Your task to perform on an android device: open app "Adobe Acrobat Reader" (install if not already installed), go to login, and select forgot password Image 0: 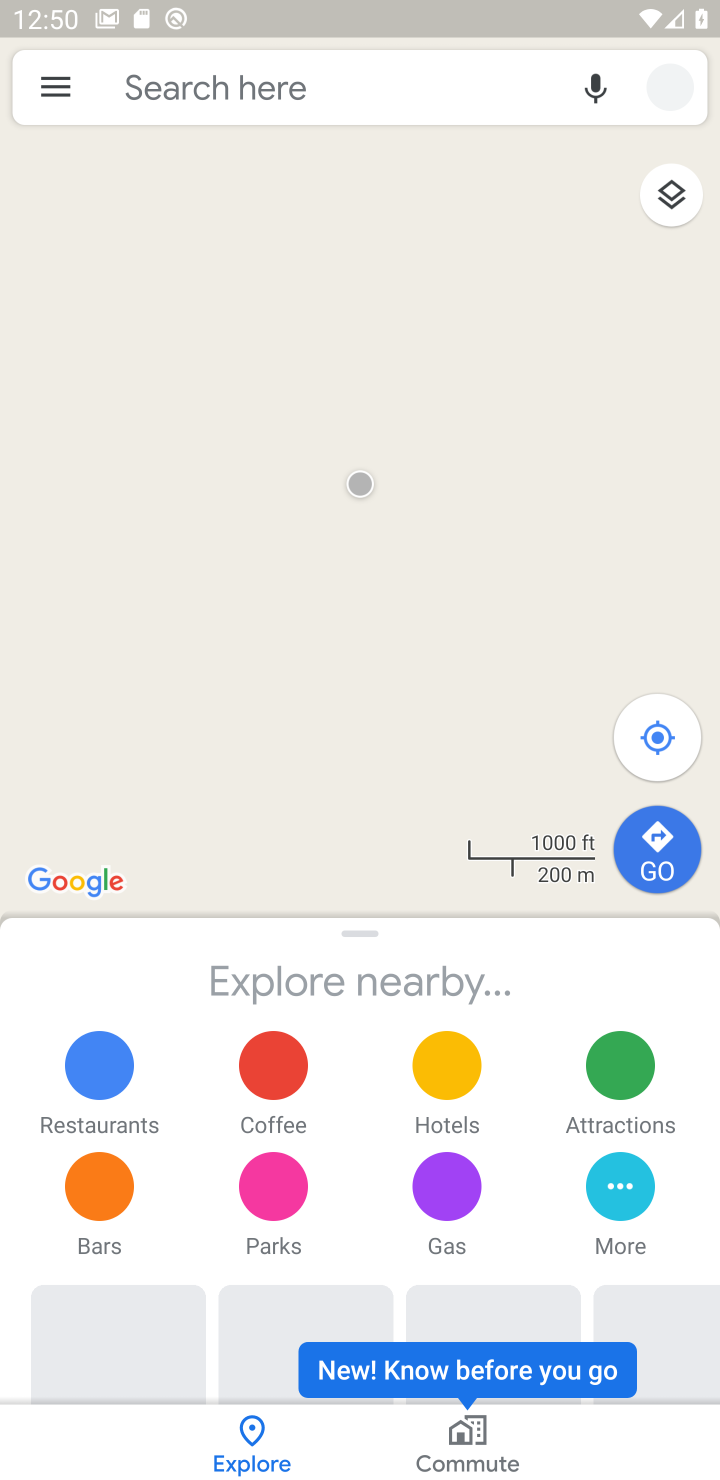
Step 0: press home button
Your task to perform on an android device: open app "Adobe Acrobat Reader" (install if not already installed), go to login, and select forgot password Image 1: 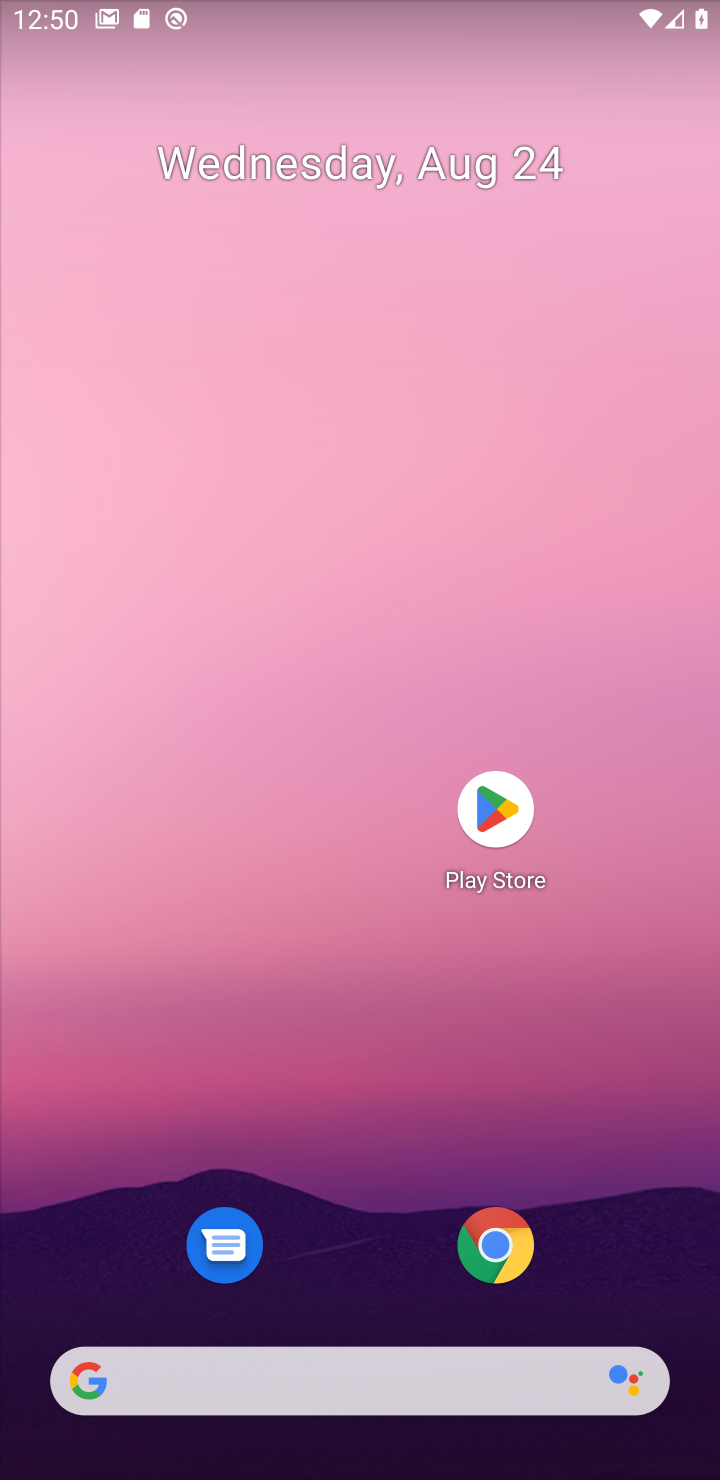
Step 1: click (493, 811)
Your task to perform on an android device: open app "Adobe Acrobat Reader" (install if not already installed), go to login, and select forgot password Image 2: 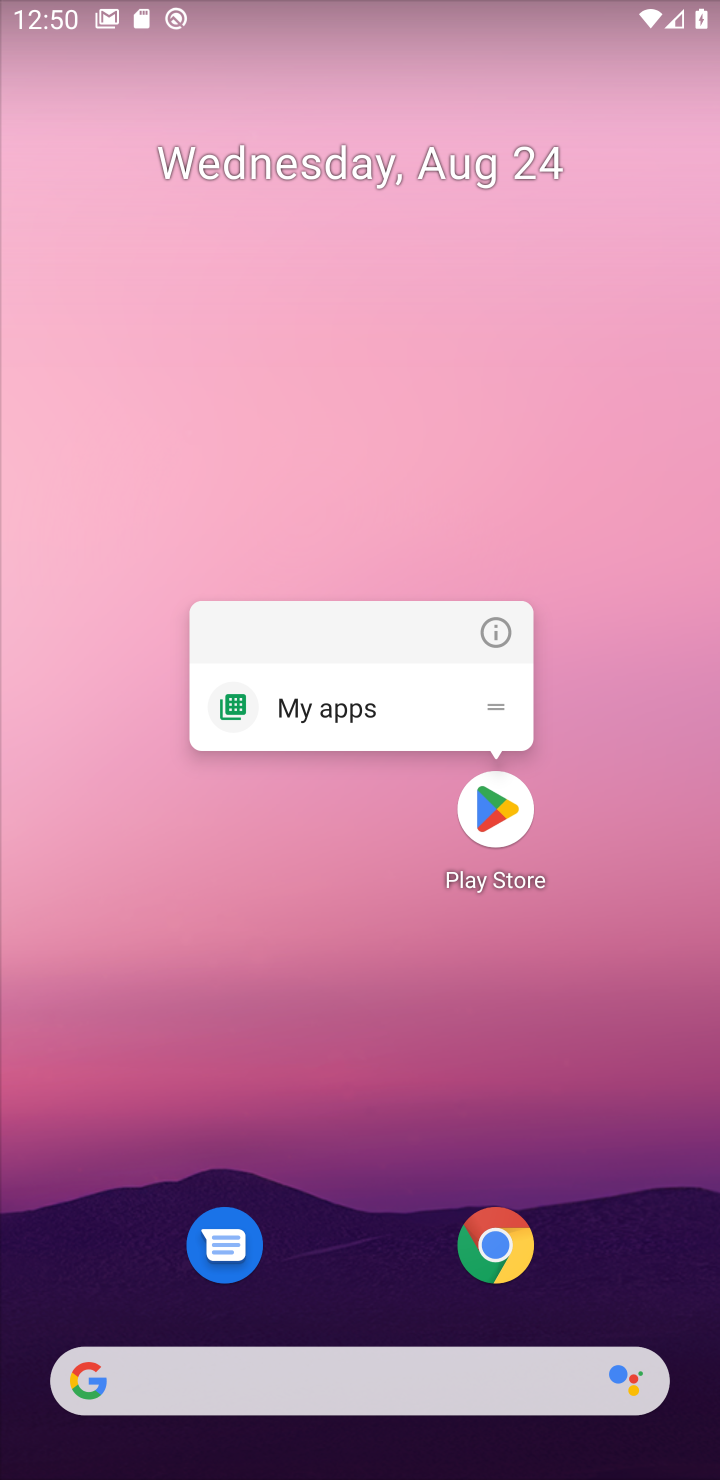
Step 2: click (497, 822)
Your task to perform on an android device: open app "Adobe Acrobat Reader" (install if not already installed), go to login, and select forgot password Image 3: 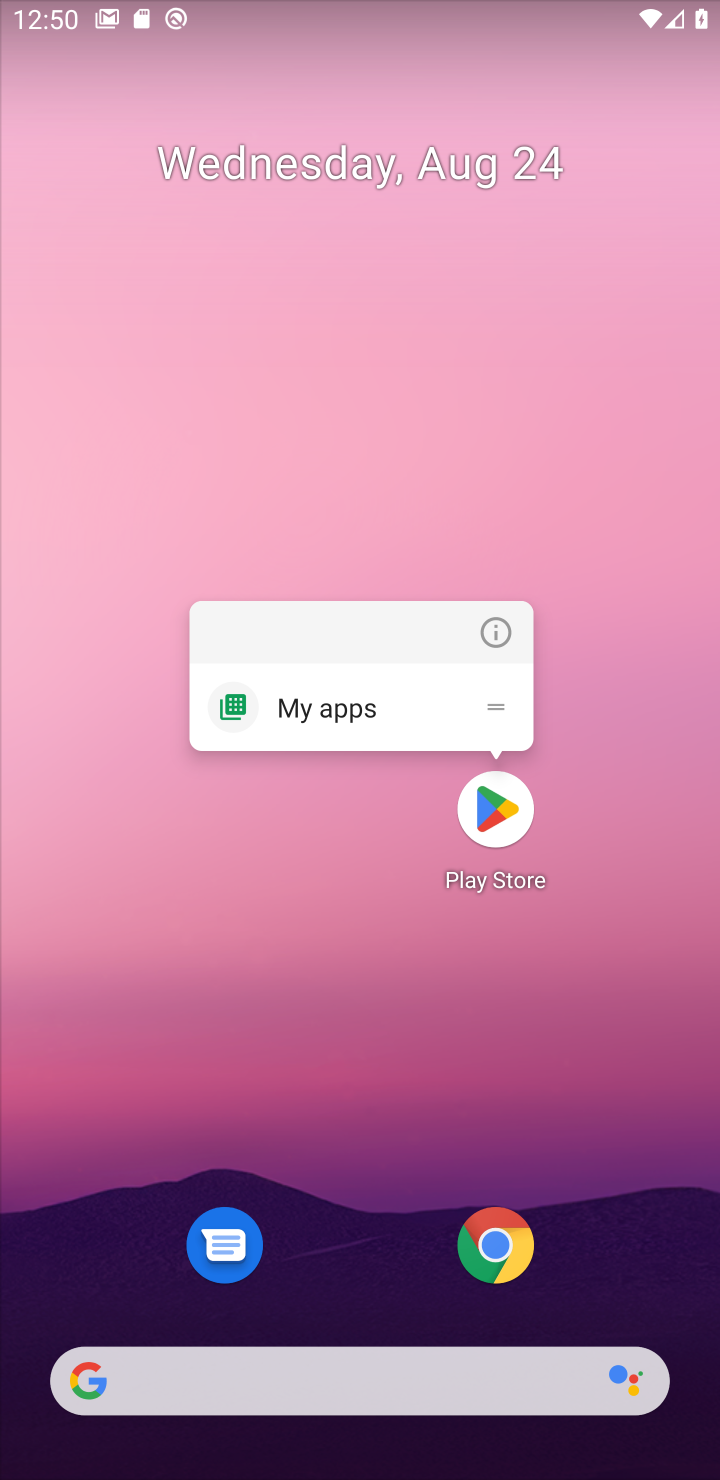
Step 3: click (497, 832)
Your task to perform on an android device: open app "Adobe Acrobat Reader" (install if not already installed), go to login, and select forgot password Image 4: 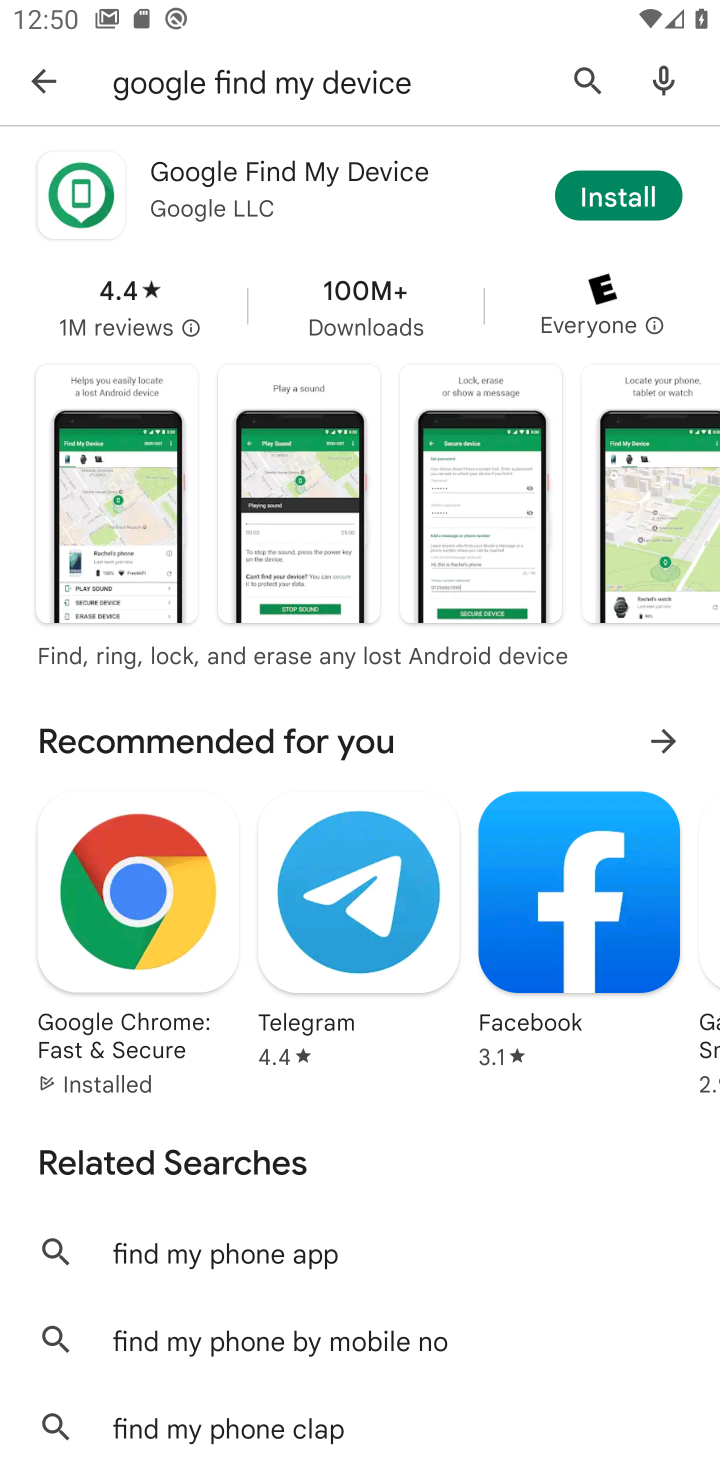
Step 4: click (583, 57)
Your task to perform on an android device: open app "Adobe Acrobat Reader" (install if not already installed), go to login, and select forgot password Image 5: 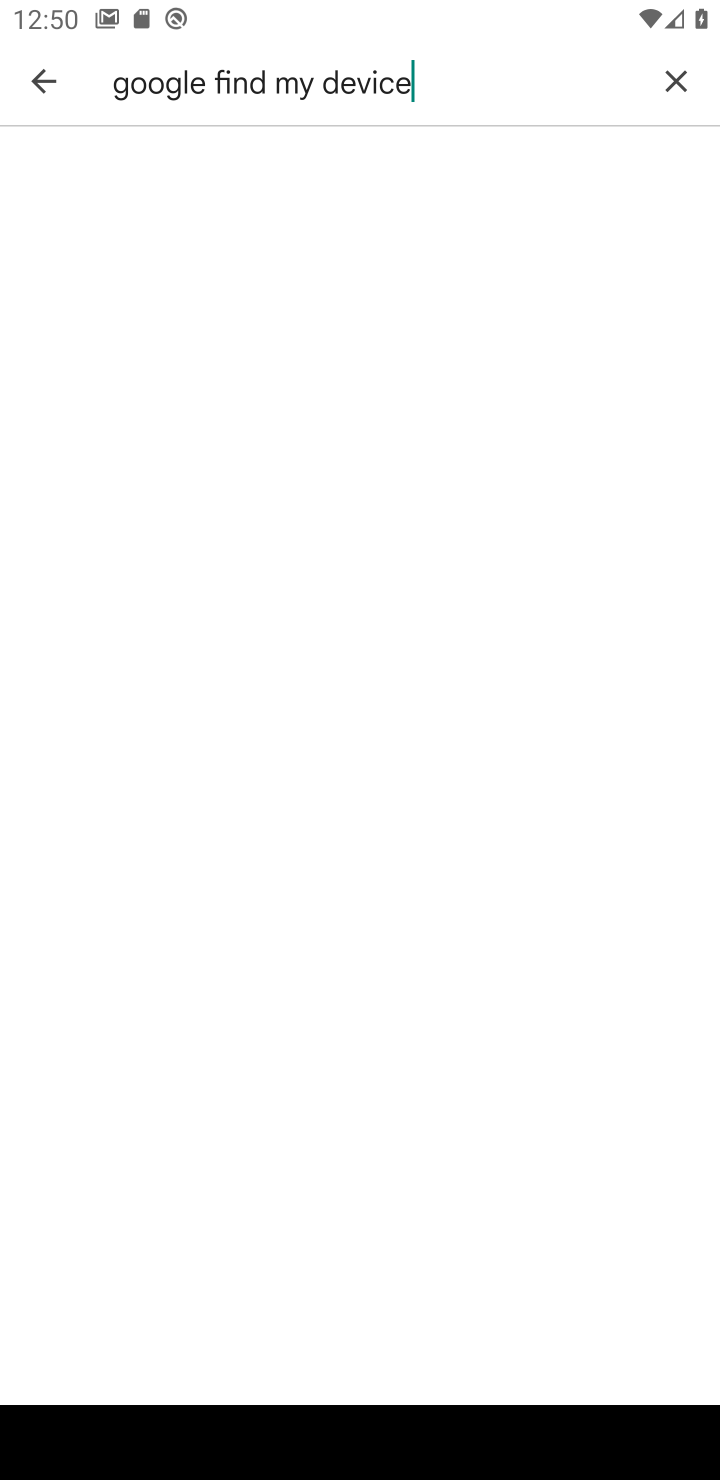
Step 5: click (674, 87)
Your task to perform on an android device: open app "Adobe Acrobat Reader" (install if not already installed), go to login, and select forgot password Image 6: 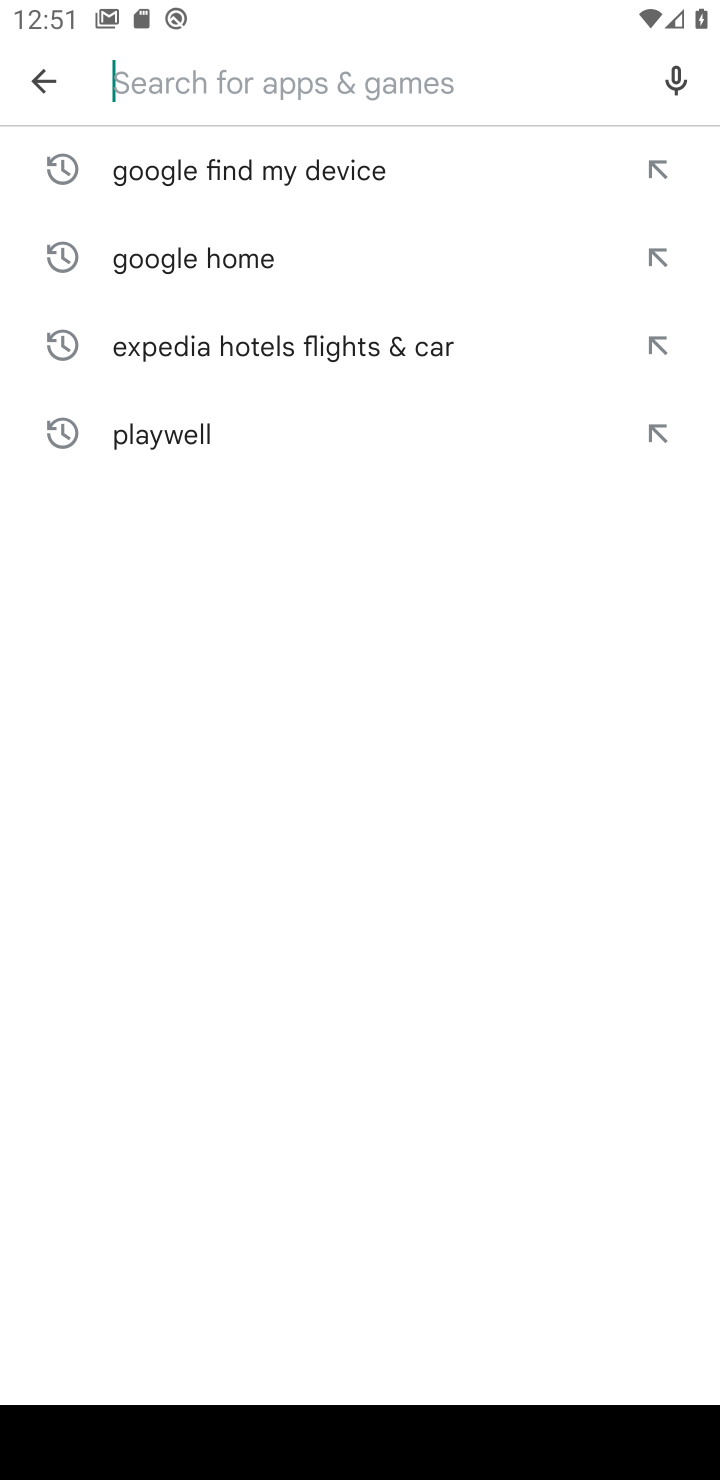
Step 6: type "Adobe Acrobat Reader"
Your task to perform on an android device: open app "Adobe Acrobat Reader" (install if not already installed), go to login, and select forgot password Image 7: 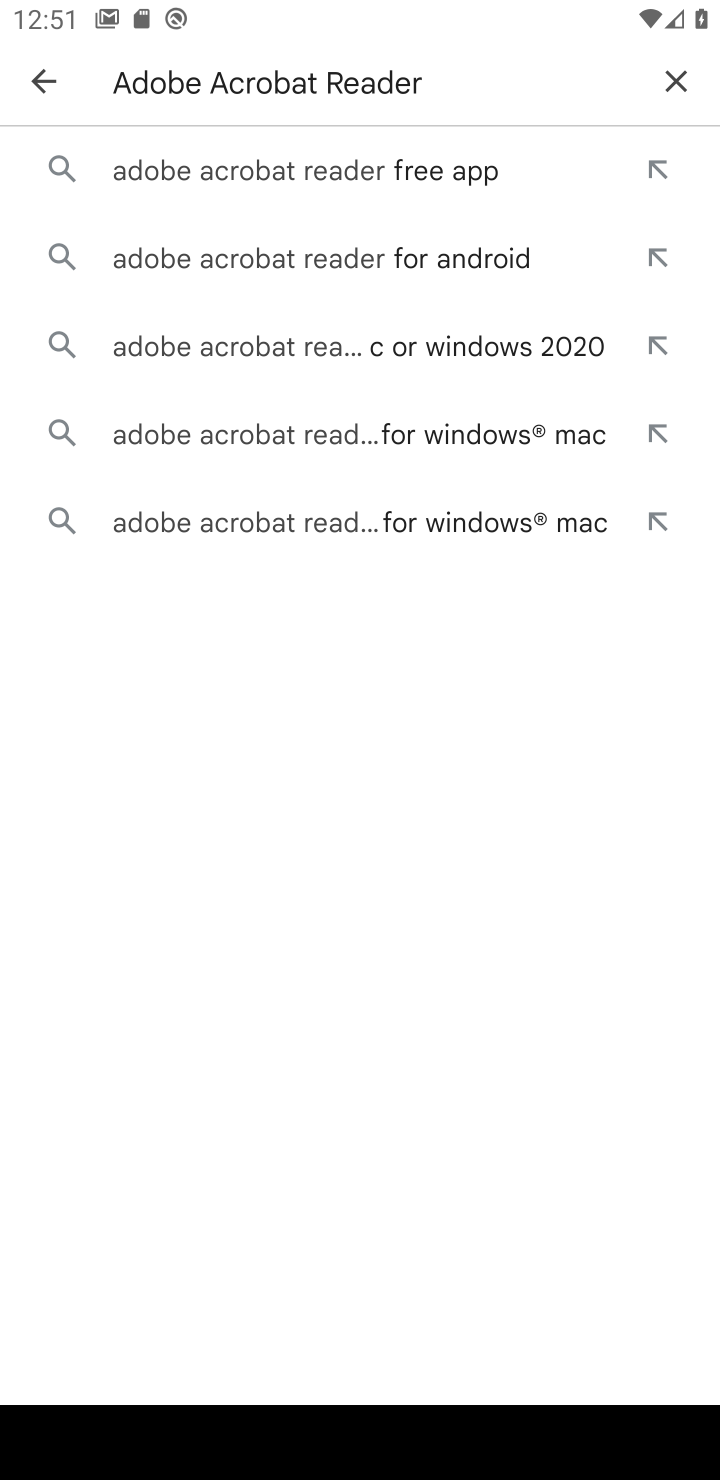
Step 7: click (282, 171)
Your task to perform on an android device: open app "Adobe Acrobat Reader" (install if not already installed), go to login, and select forgot password Image 8: 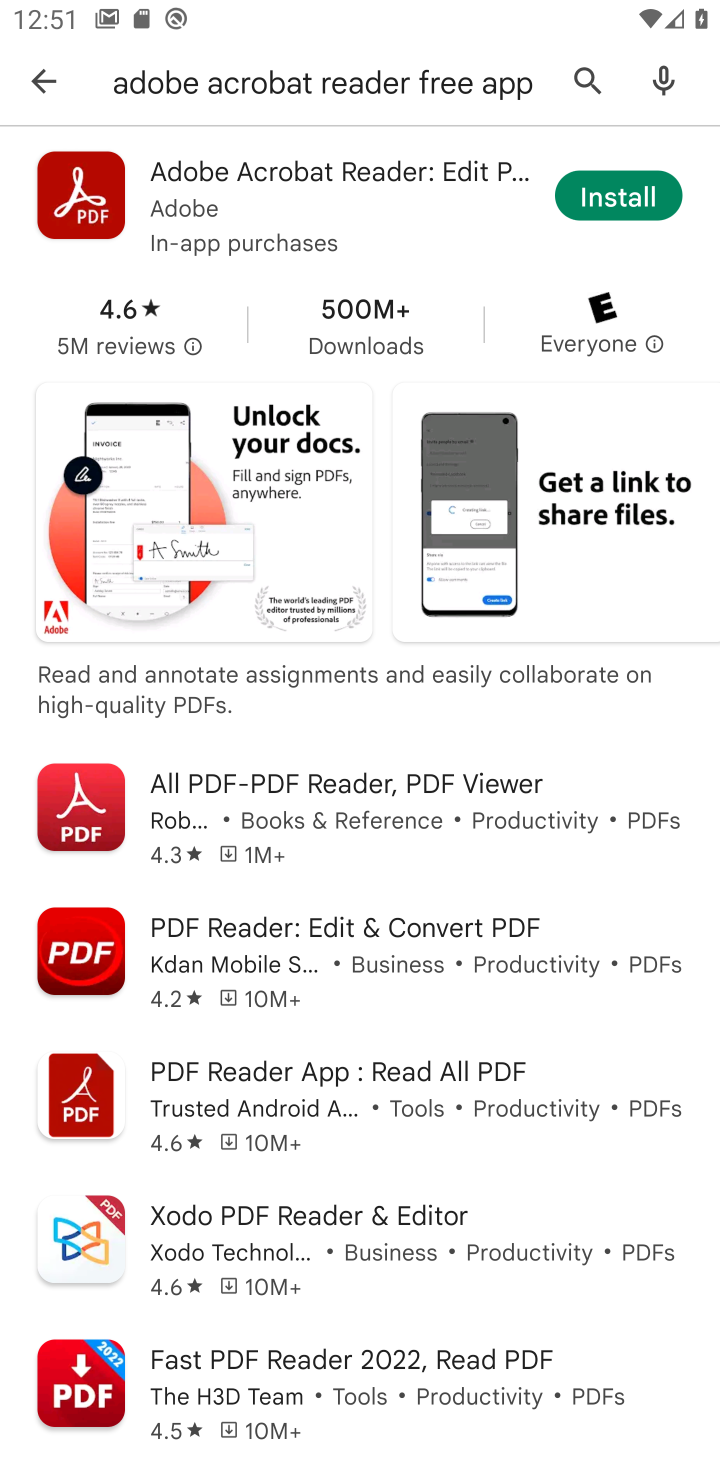
Step 8: click (641, 199)
Your task to perform on an android device: open app "Adobe Acrobat Reader" (install if not already installed), go to login, and select forgot password Image 9: 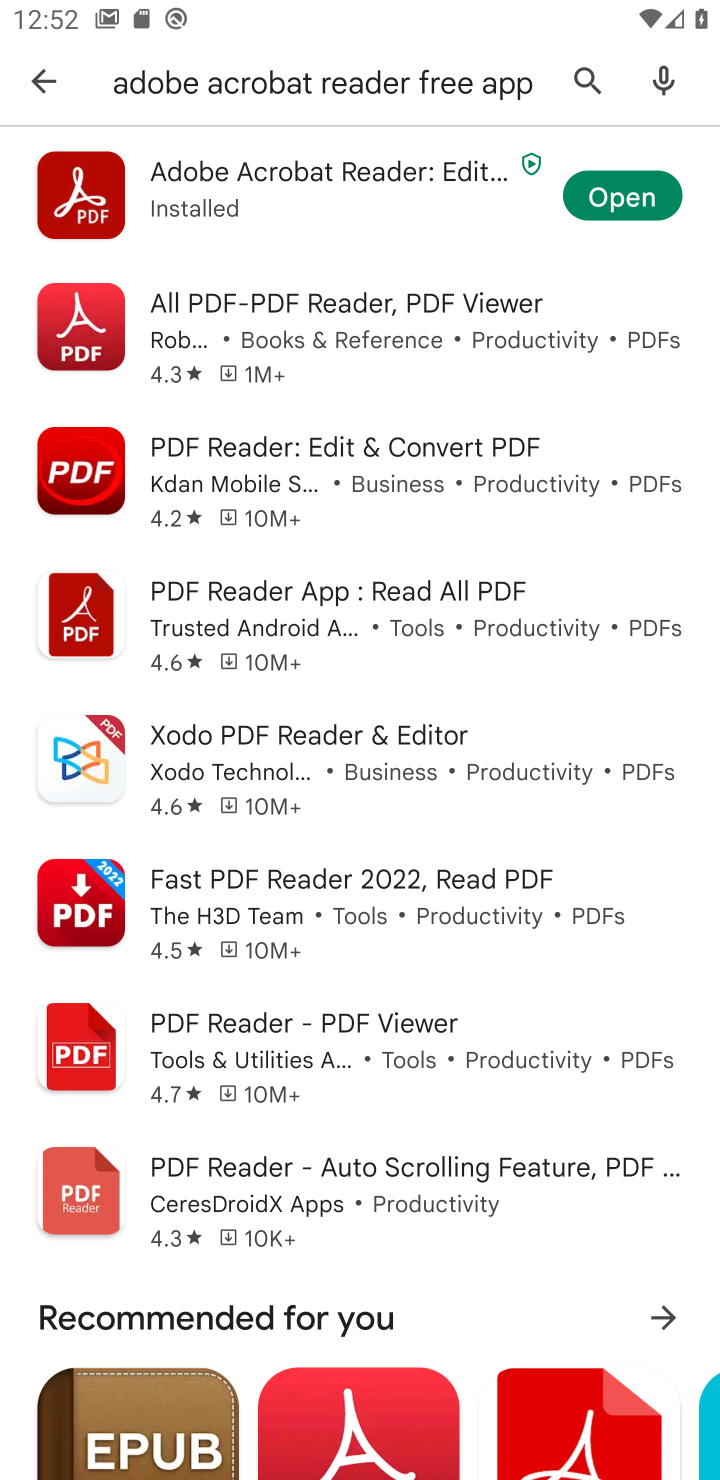
Step 9: click (648, 194)
Your task to perform on an android device: open app "Adobe Acrobat Reader" (install if not already installed), go to login, and select forgot password Image 10: 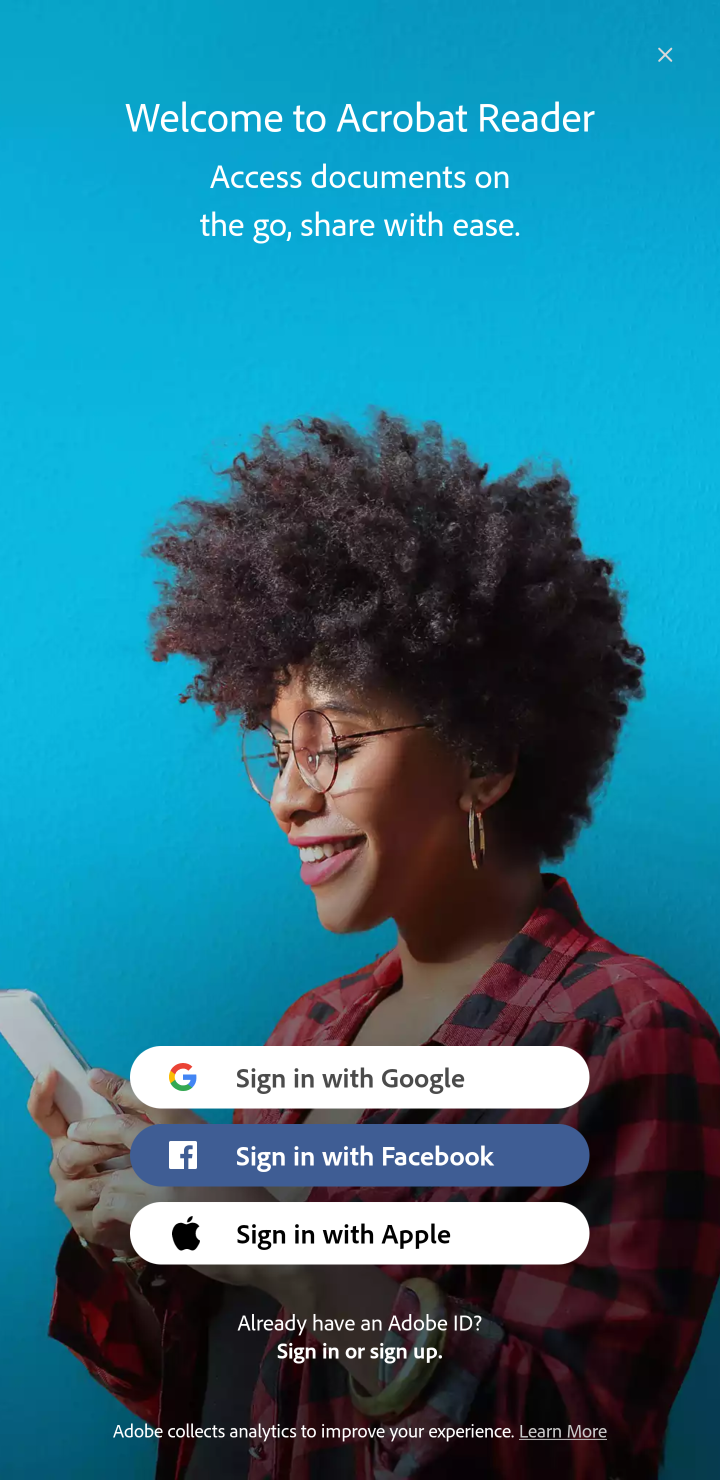
Step 10: click (363, 1344)
Your task to perform on an android device: open app "Adobe Acrobat Reader" (install if not already installed), go to login, and select forgot password Image 11: 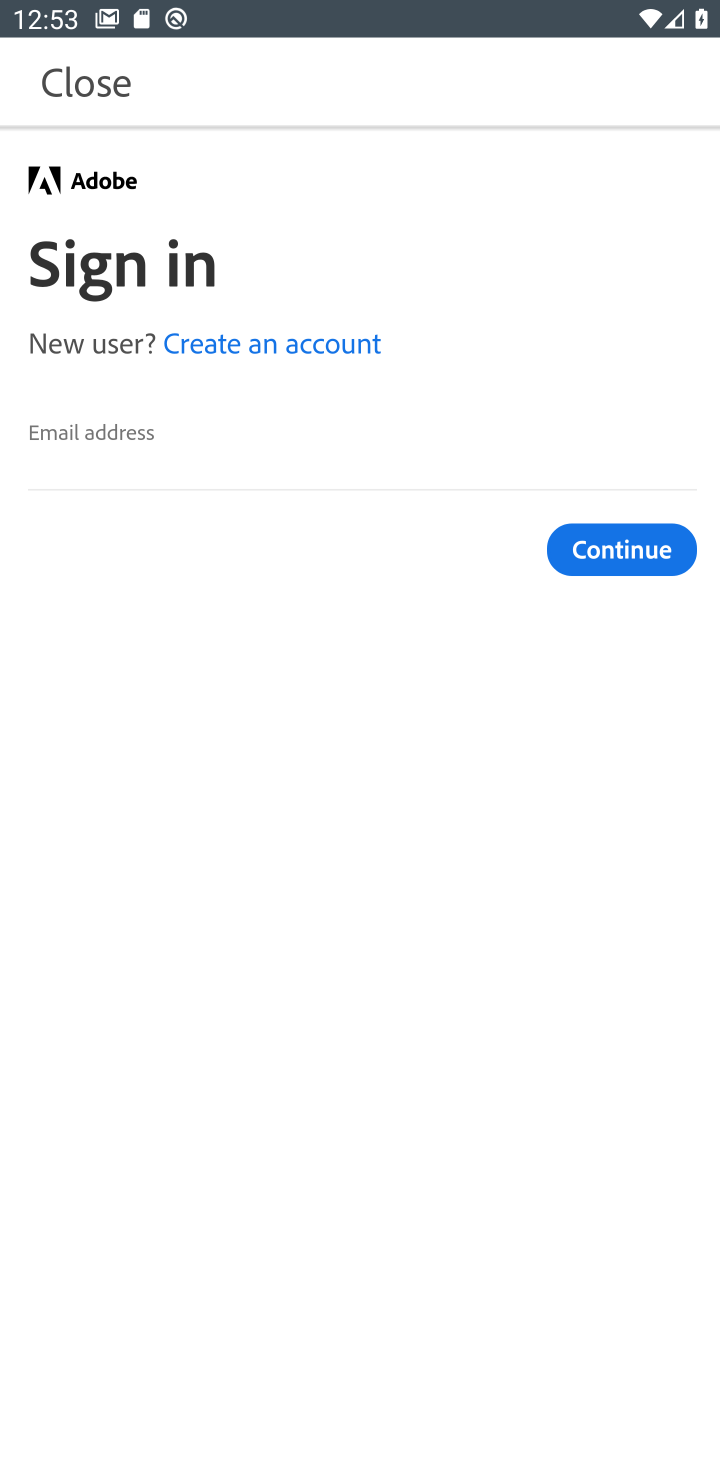
Step 11: task complete